Your task to perform on an android device: check google app version Image 0: 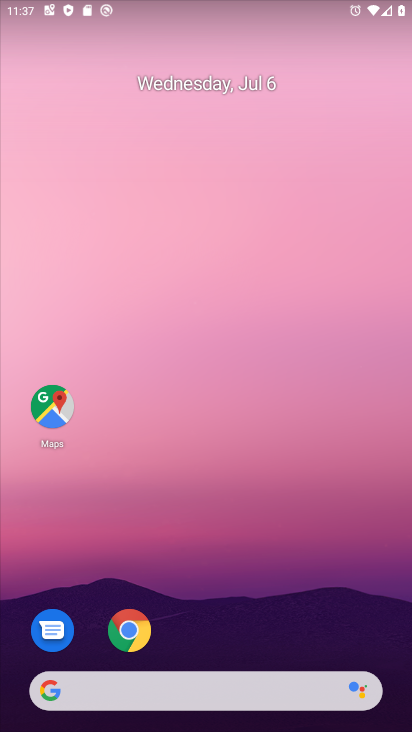
Step 0: drag from (295, 641) to (192, 87)
Your task to perform on an android device: check google app version Image 1: 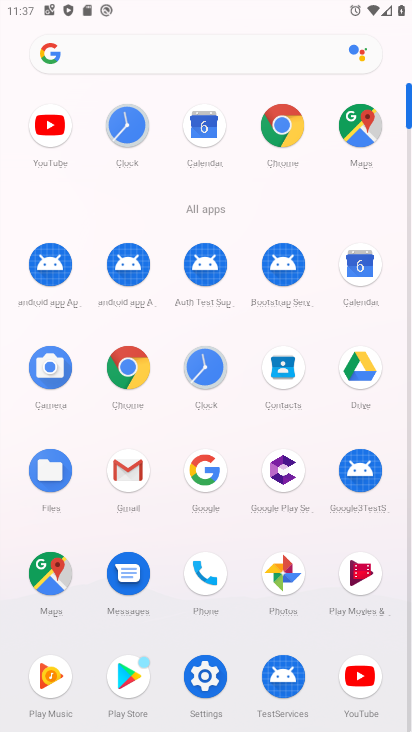
Step 1: click (280, 131)
Your task to perform on an android device: check google app version Image 2: 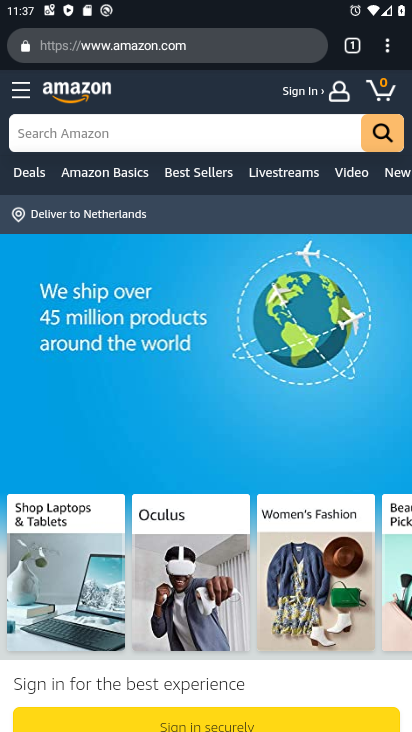
Step 2: click (389, 43)
Your task to perform on an android device: check google app version Image 3: 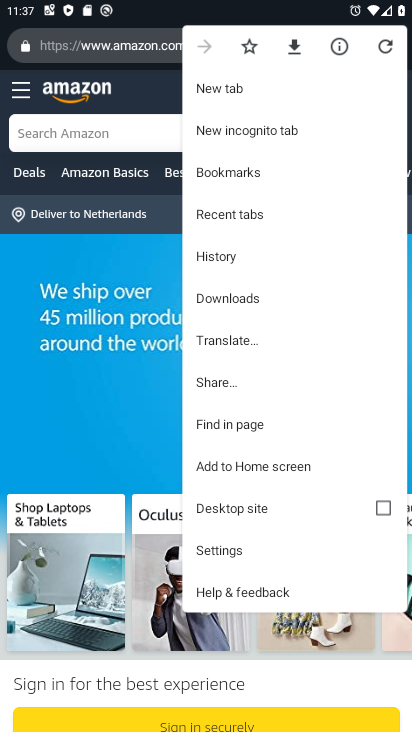
Step 3: click (278, 591)
Your task to perform on an android device: check google app version Image 4: 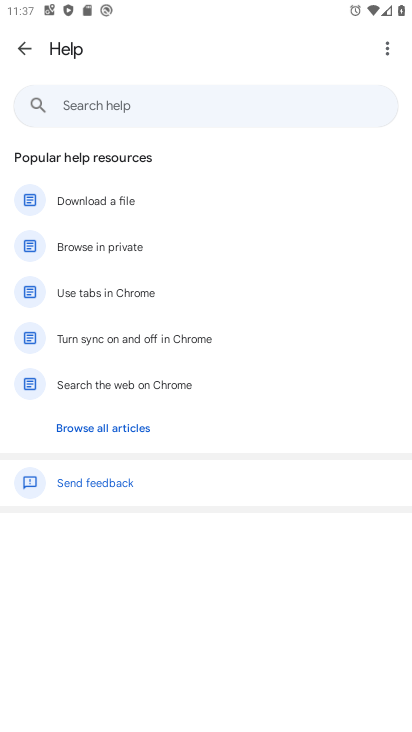
Step 4: click (391, 51)
Your task to perform on an android device: check google app version Image 5: 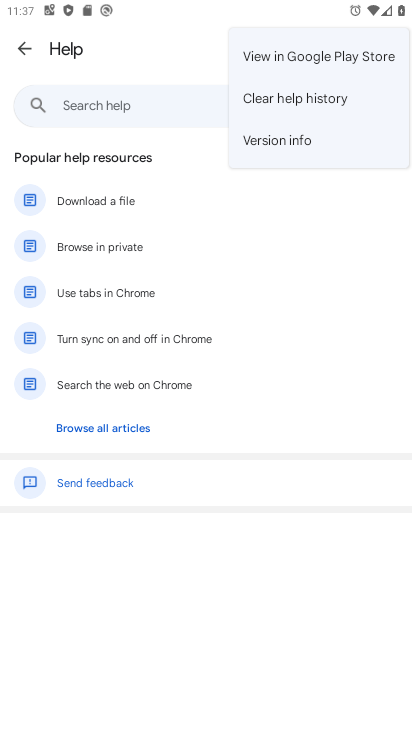
Step 5: click (328, 136)
Your task to perform on an android device: check google app version Image 6: 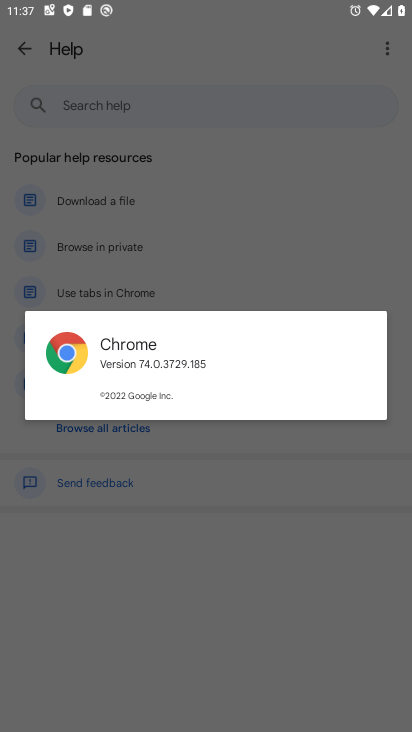
Step 6: task complete